Your task to perform on an android device: turn off translation in the chrome app Image 0: 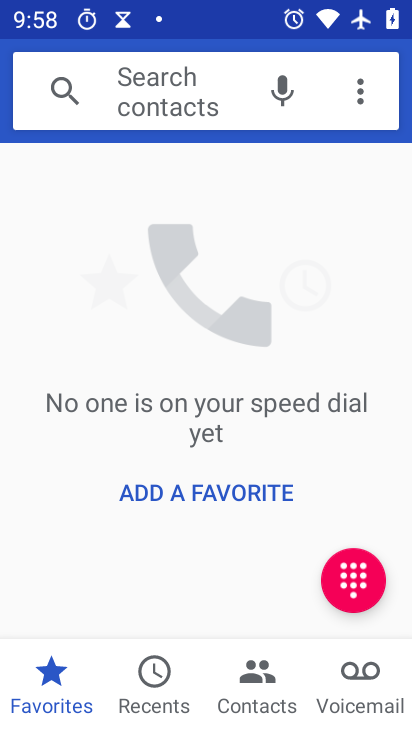
Step 0: press home button
Your task to perform on an android device: turn off translation in the chrome app Image 1: 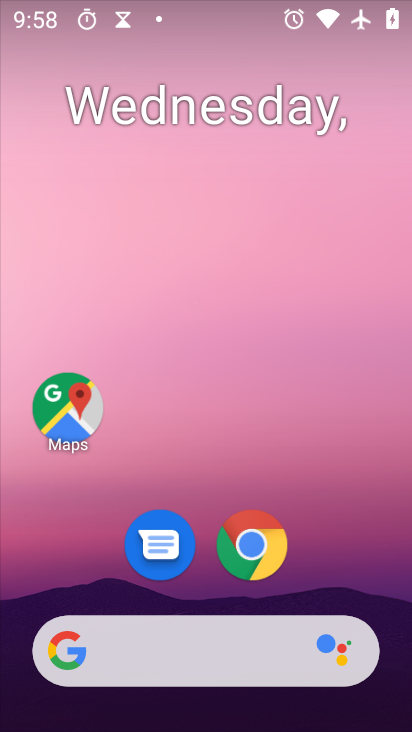
Step 1: click (252, 564)
Your task to perform on an android device: turn off translation in the chrome app Image 2: 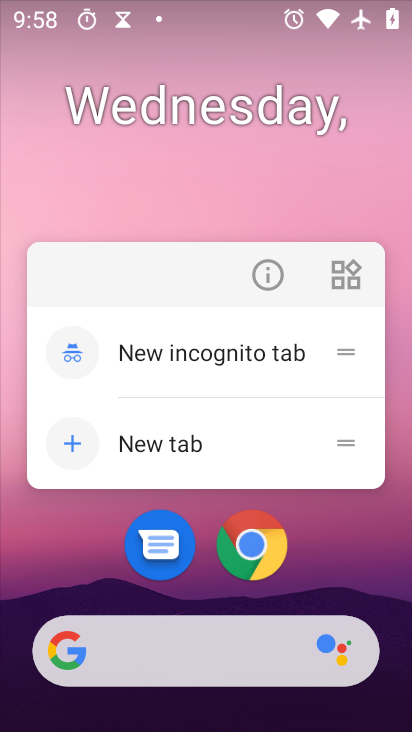
Step 2: click (260, 551)
Your task to perform on an android device: turn off translation in the chrome app Image 3: 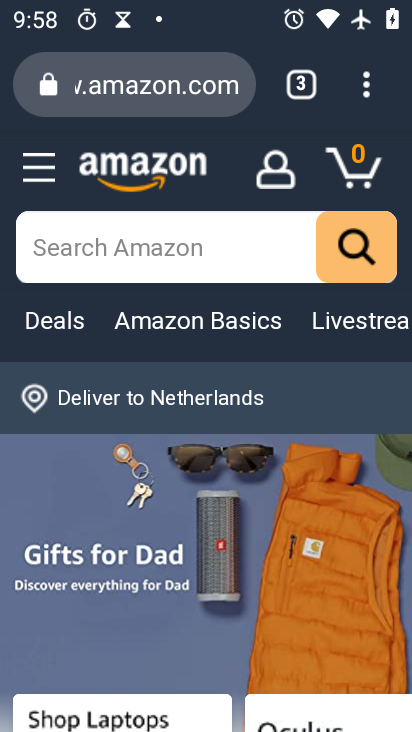
Step 3: drag from (370, 95) to (189, 596)
Your task to perform on an android device: turn off translation in the chrome app Image 4: 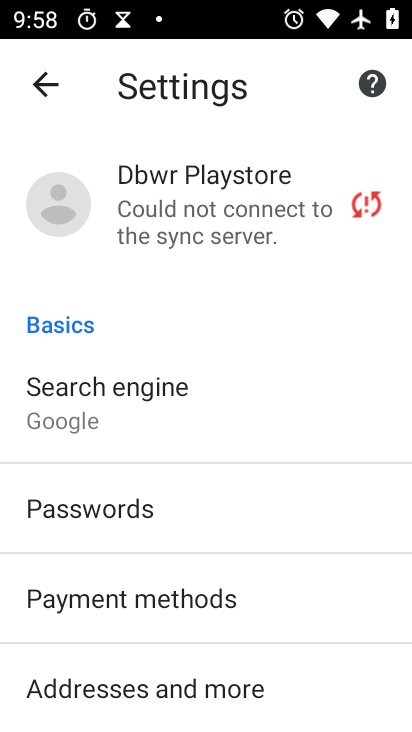
Step 4: drag from (196, 663) to (233, 68)
Your task to perform on an android device: turn off translation in the chrome app Image 5: 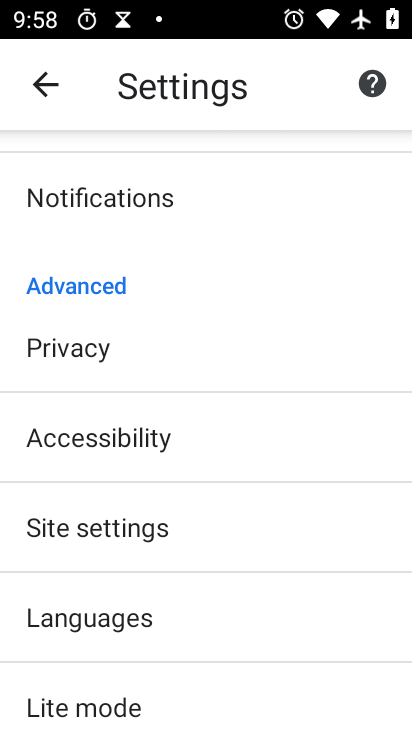
Step 5: click (141, 617)
Your task to perform on an android device: turn off translation in the chrome app Image 6: 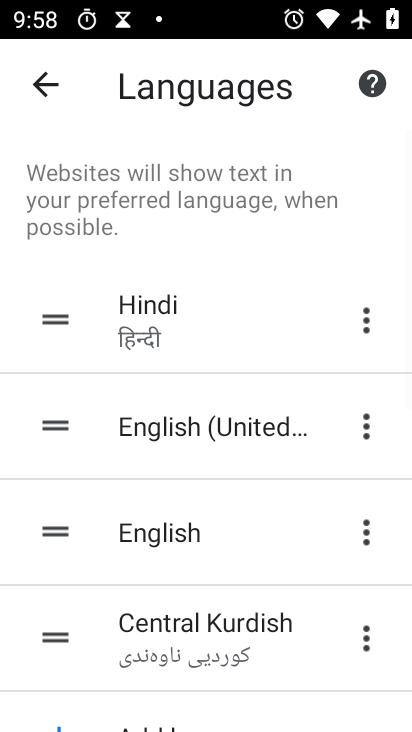
Step 6: drag from (189, 673) to (338, 251)
Your task to perform on an android device: turn off translation in the chrome app Image 7: 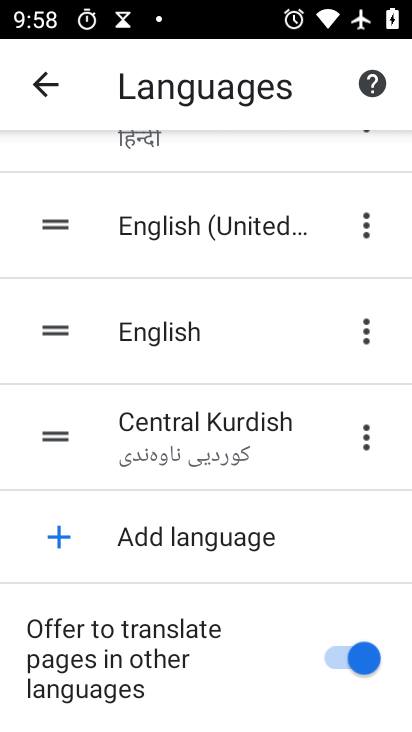
Step 7: click (341, 657)
Your task to perform on an android device: turn off translation in the chrome app Image 8: 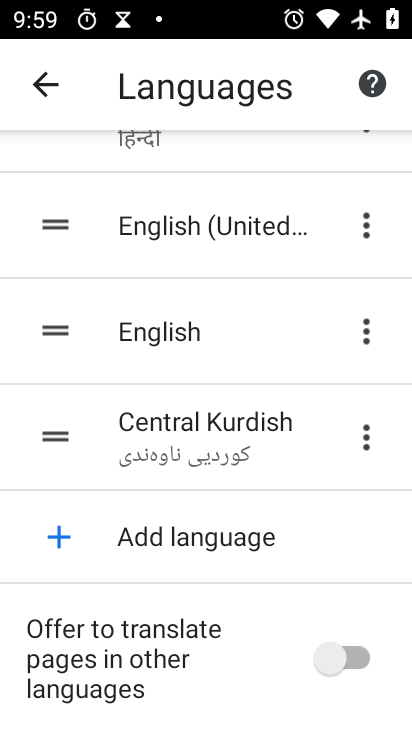
Step 8: task complete